Your task to perform on an android device: add a contact in the contacts app Image 0: 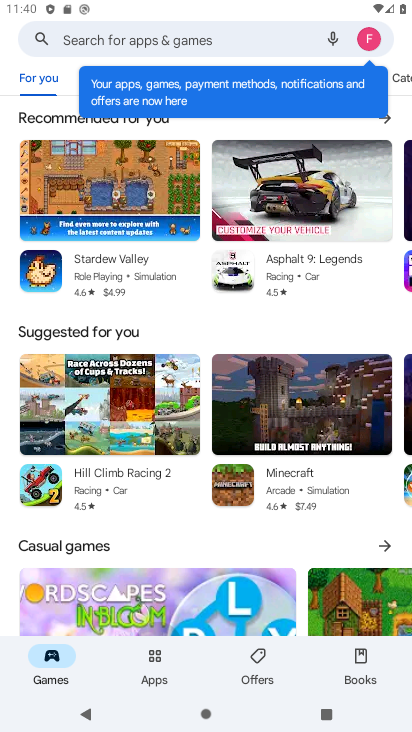
Step 0: press home button
Your task to perform on an android device: add a contact in the contacts app Image 1: 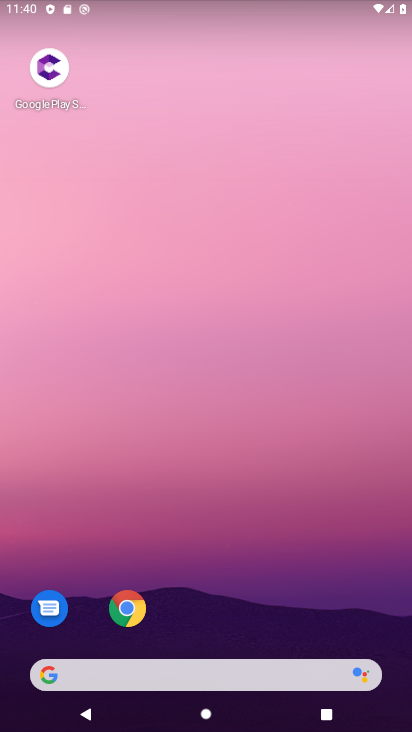
Step 1: drag from (283, 592) to (272, 7)
Your task to perform on an android device: add a contact in the contacts app Image 2: 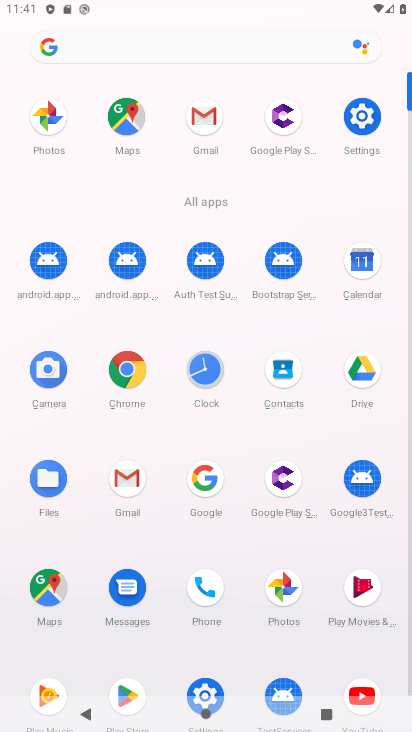
Step 2: click (213, 593)
Your task to perform on an android device: add a contact in the contacts app Image 3: 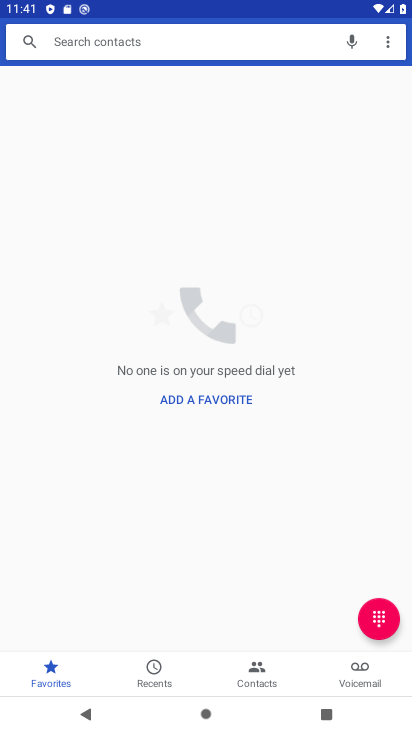
Step 3: click (243, 675)
Your task to perform on an android device: add a contact in the contacts app Image 4: 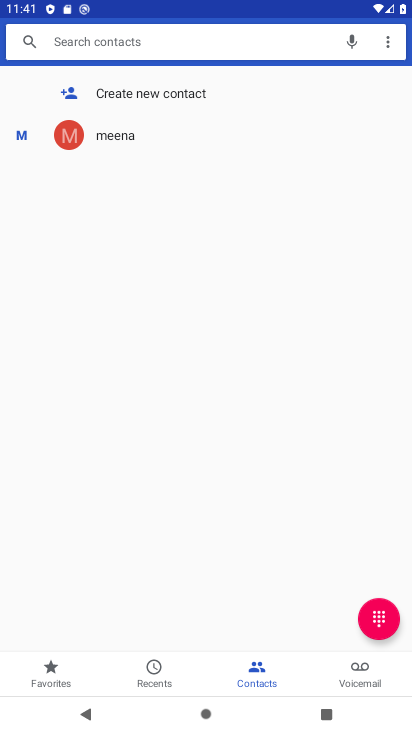
Step 4: click (124, 89)
Your task to perform on an android device: add a contact in the contacts app Image 5: 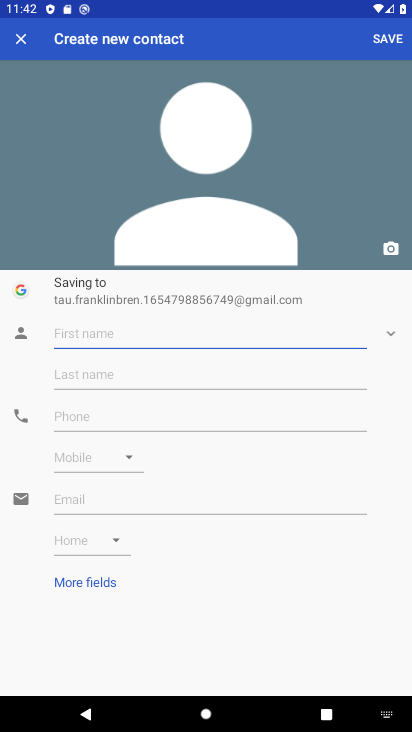
Step 5: type "tyyyyy"
Your task to perform on an android device: add a contact in the contacts app Image 6: 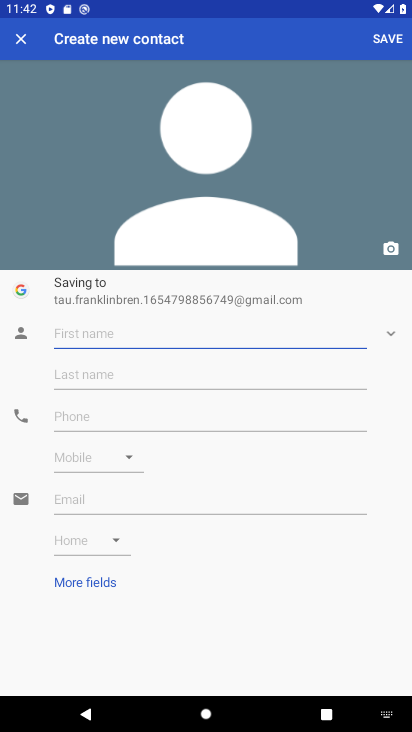
Step 6: click (100, 409)
Your task to perform on an android device: add a contact in the contacts app Image 7: 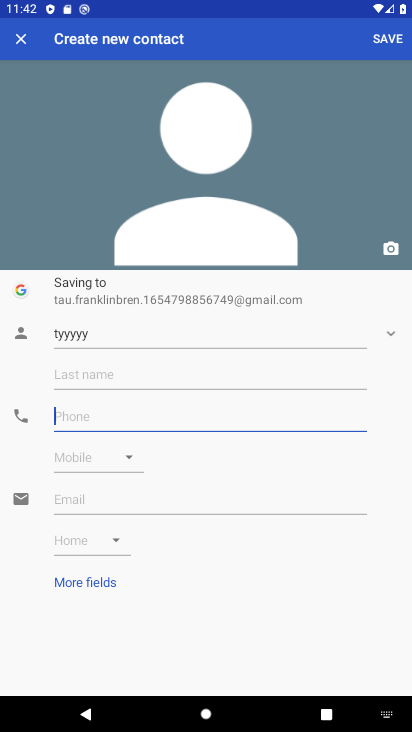
Step 7: type "53737773"
Your task to perform on an android device: add a contact in the contacts app Image 8: 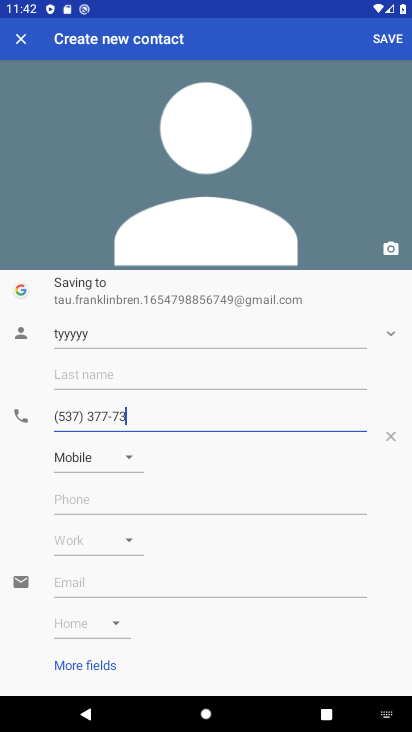
Step 8: click (383, 33)
Your task to perform on an android device: add a contact in the contacts app Image 9: 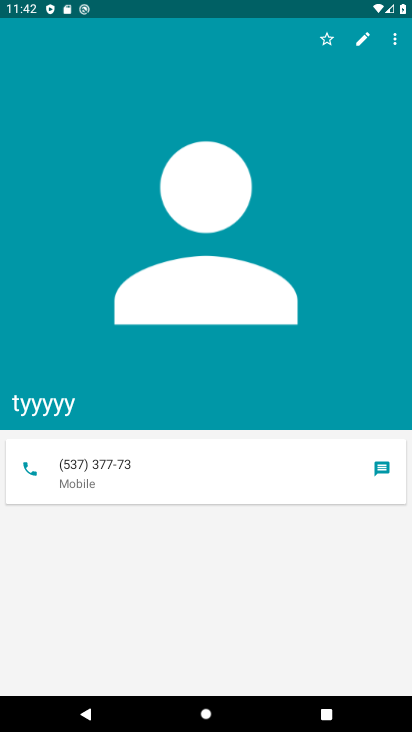
Step 9: task complete